Your task to perform on an android device: change timer sound Image 0: 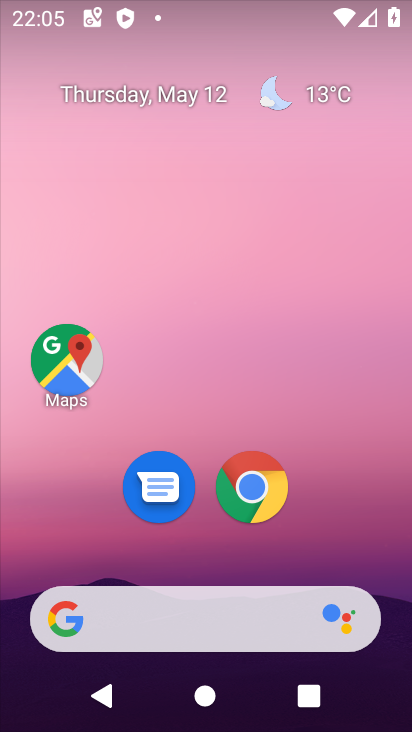
Step 0: drag from (227, 558) to (318, 84)
Your task to perform on an android device: change timer sound Image 1: 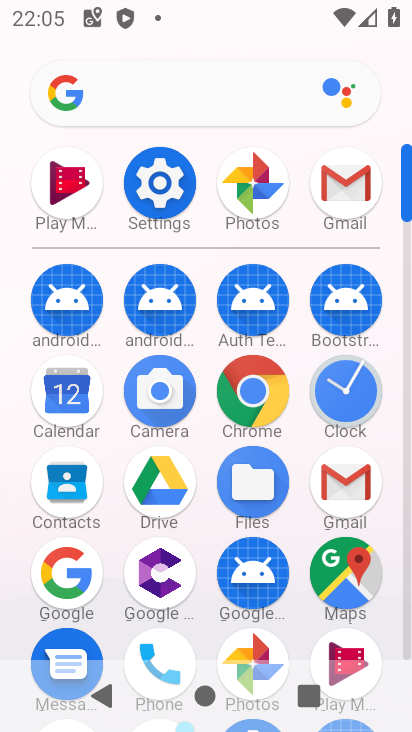
Step 1: click (165, 165)
Your task to perform on an android device: change timer sound Image 2: 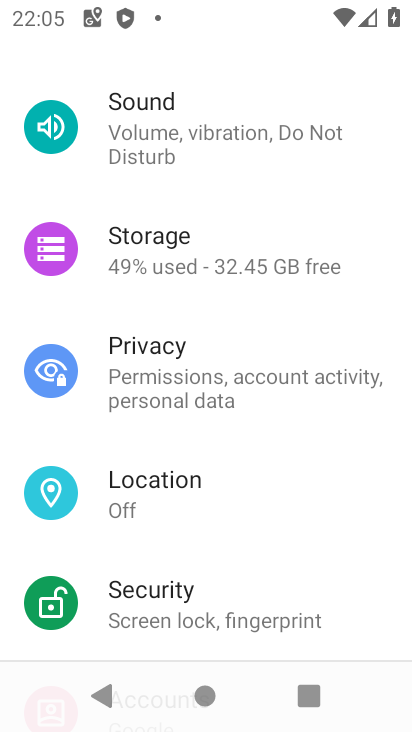
Step 2: click (197, 163)
Your task to perform on an android device: change timer sound Image 3: 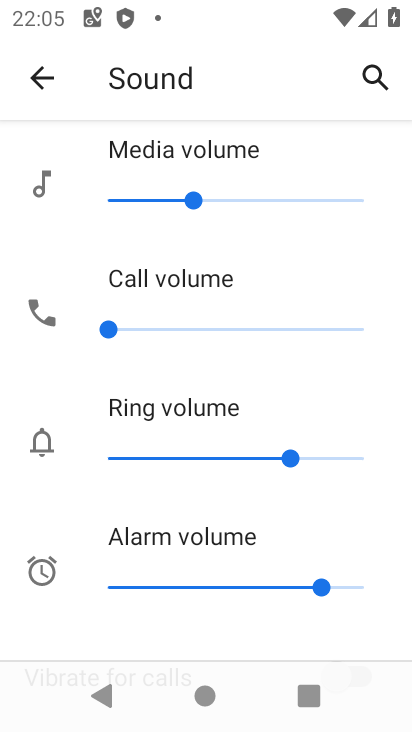
Step 3: task complete